Your task to perform on an android device: When is my next meeting? Image 0: 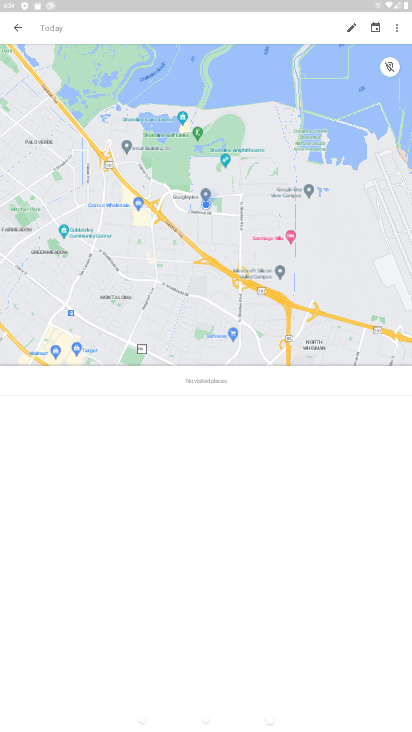
Step 0: press home button
Your task to perform on an android device: When is my next meeting? Image 1: 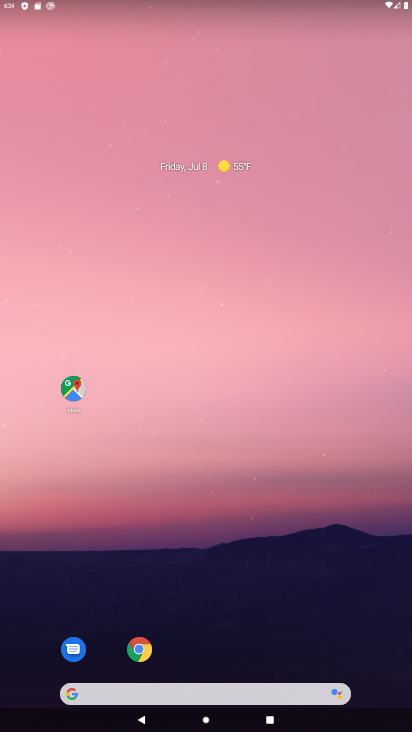
Step 1: drag from (234, 679) to (280, 4)
Your task to perform on an android device: When is my next meeting? Image 2: 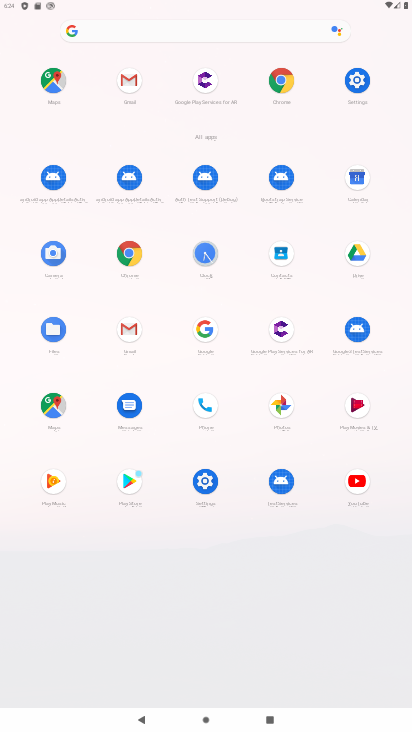
Step 2: click (354, 183)
Your task to perform on an android device: When is my next meeting? Image 3: 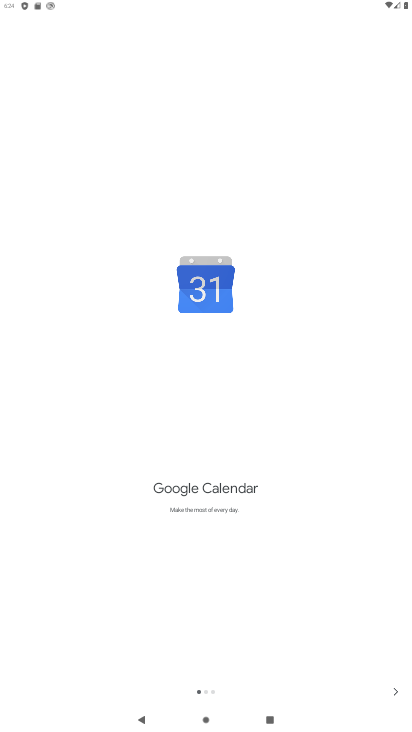
Step 3: click (396, 690)
Your task to perform on an android device: When is my next meeting? Image 4: 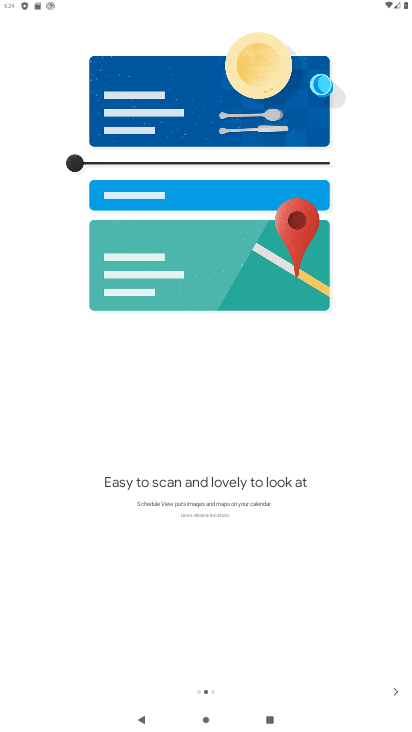
Step 4: click (396, 690)
Your task to perform on an android device: When is my next meeting? Image 5: 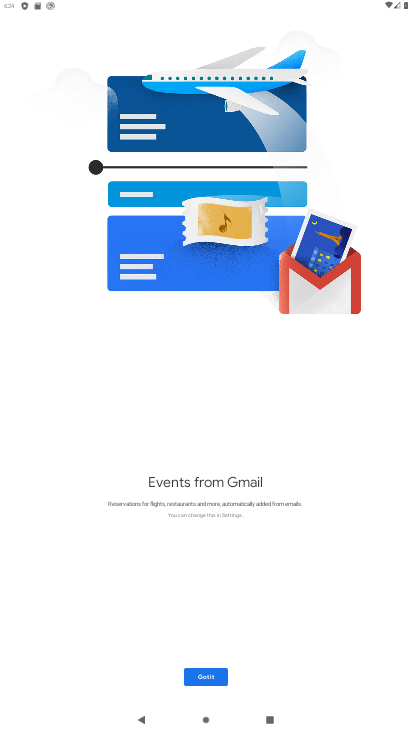
Step 5: click (215, 682)
Your task to perform on an android device: When is my next meeting? Image 6: 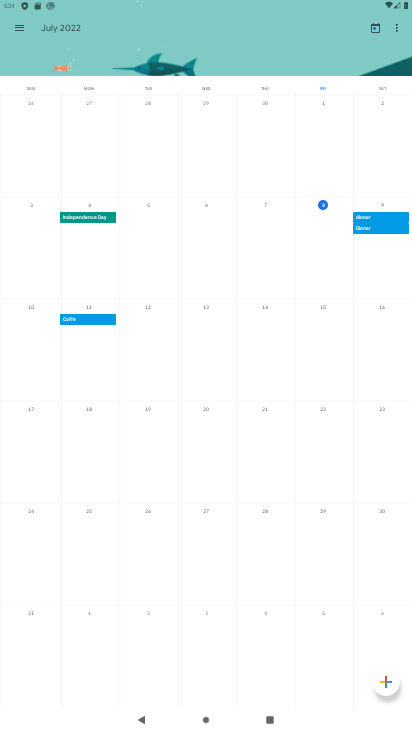
Step 6: click (385, 204)
Your task to perform on an android device: When is my next meeting? Image 7: 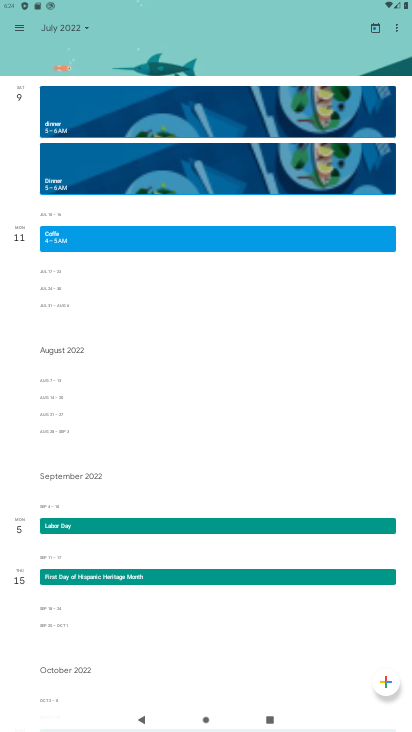
Step 7: task complete